Your task to perform on an android device: Open Maps and search for coffee Image 0: 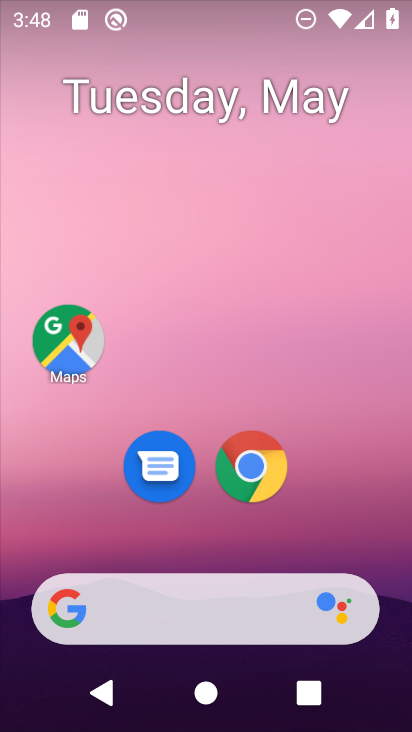
Step 0: drag from (305, 539) to (297, 134)
Your task to perform on an android device: Open Maps and search for coffee Image 1: 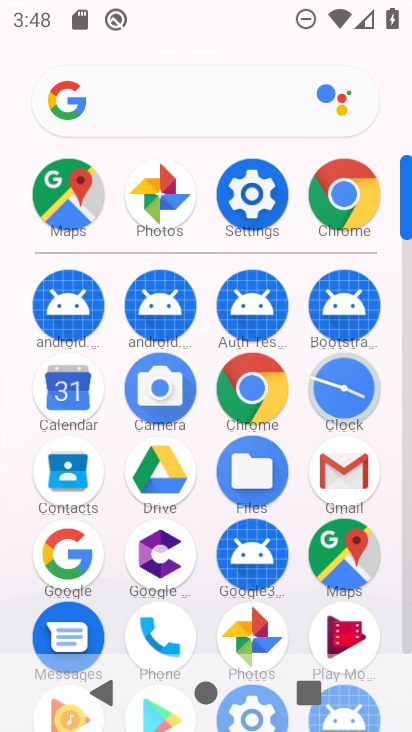
Step 1: click (71, 194)
Your task to perform on an android device: Open Maps and search for coffee Image 2: 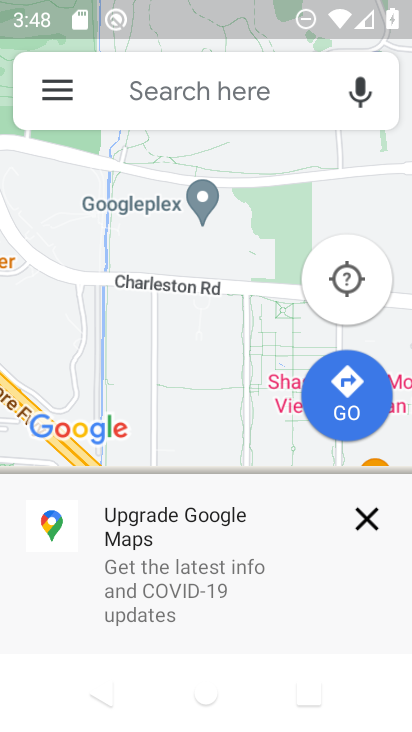
Step 2: click (167, 88)
Your task to perform on an android device: Open Maps and search for coffee Image 3: 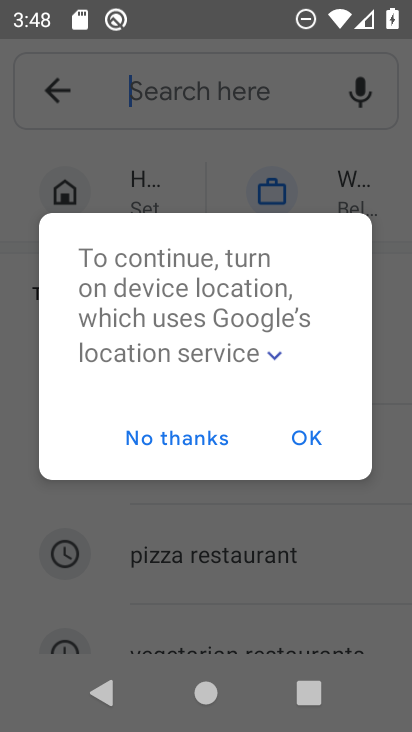
Step 3: click (309, 441)
Your task to perform on an android device: Open Maps and search for coffee Image 4: 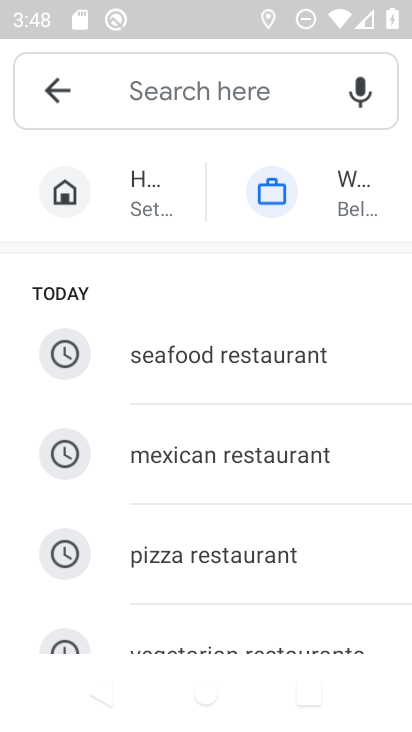
Step 4: click (175, 84)
Your task to perform on an android device: Open Maps and search for coffee Image 5: 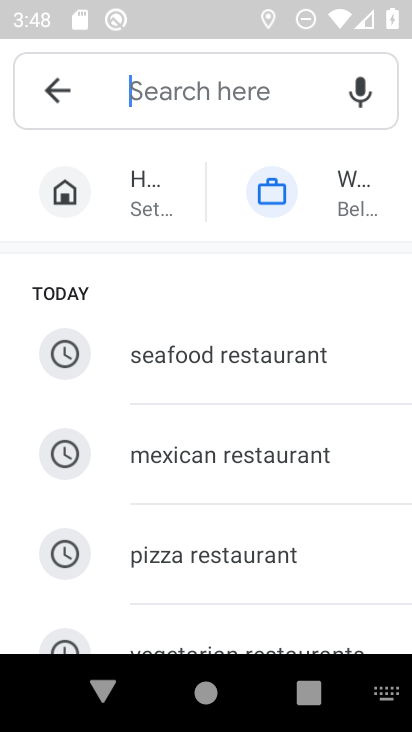
Step 5: type " coffee"
Your task to perform on an android device: Open Maps and search for coffee Image 6: 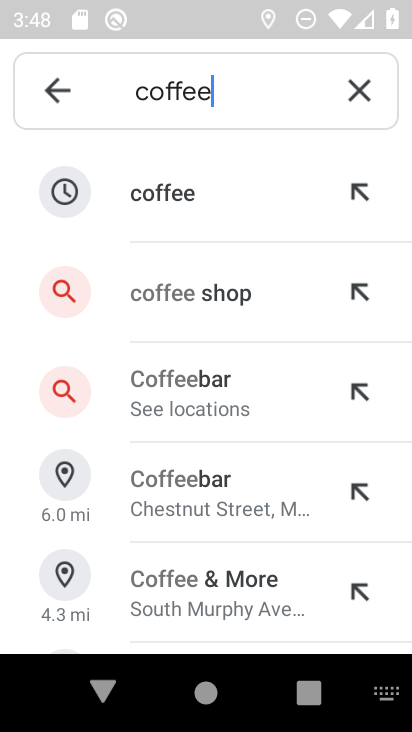
Step 6: click (171, 188)
Your task to perform on an android device: Open Maps and search for coffee Image 7: 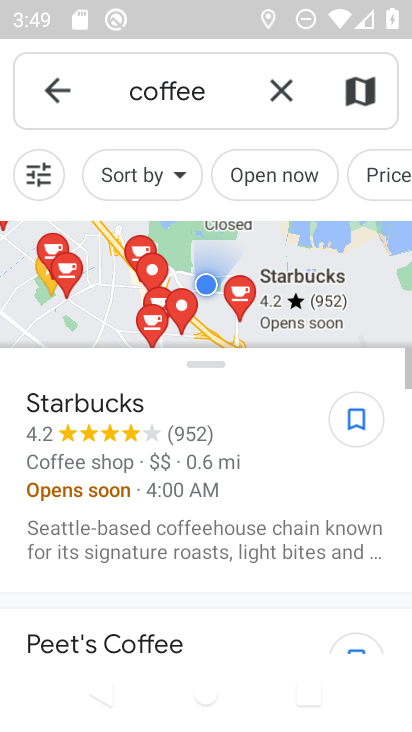
Step 7: task complete